Your task to perform on an android device: Open Maps and search for coffee Image 0: 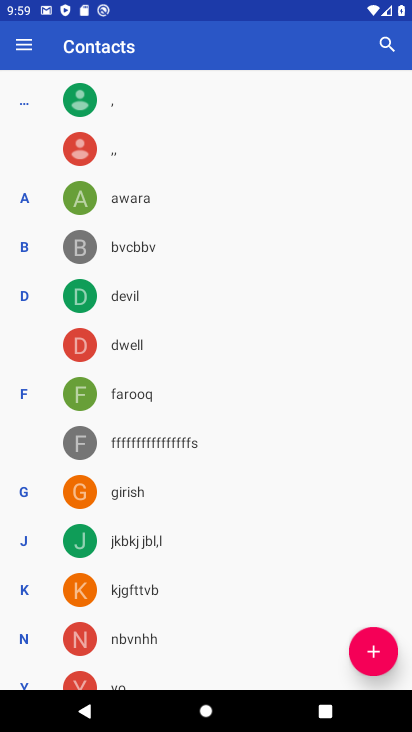
Step 0: press home button
Your task to perform on an android device: Open Maps and search for coffee Image 1: 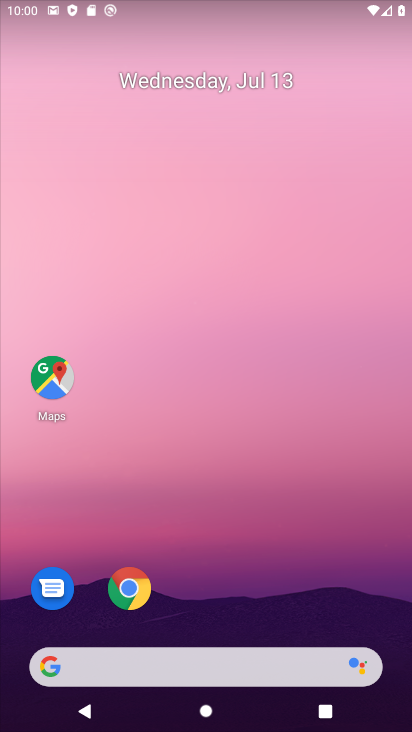
Step 1: drag from (226, 619) to (184, 31)
Your task to perform on an android device: Open Maps and search for coffee Image 2: 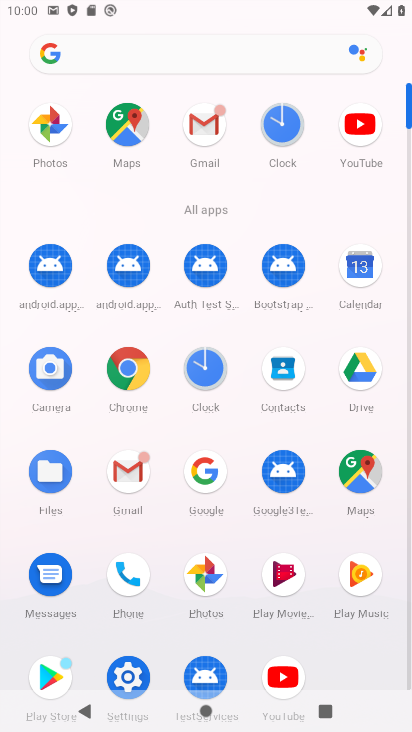
Step 2: click (360, 477)
Your task to perform on an android device: Open Maps and search for coffee Image 3: 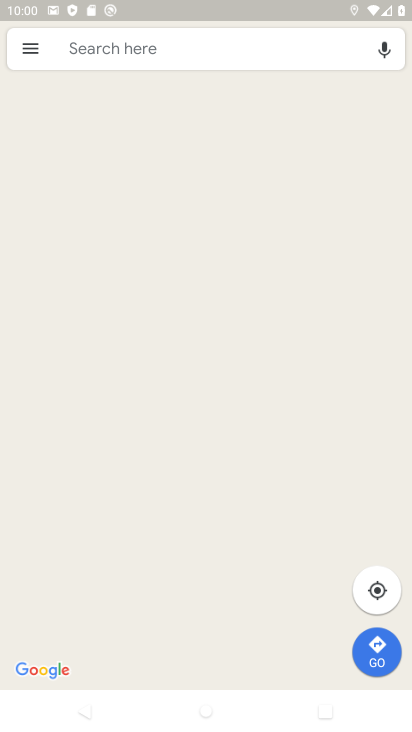
Step 3: click (260, 63)
Your task to perform on an android device: Open Maps and search for coffee Image 4: 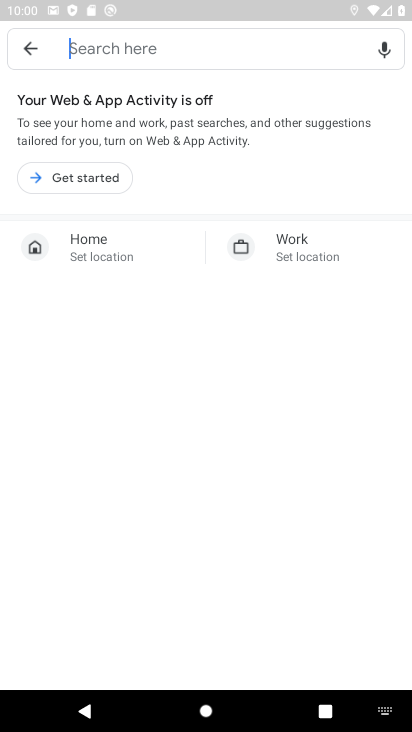
Step 4: click (69, 178)
Your task to perform on an android device: Open Maps and search for coffee Image 5: 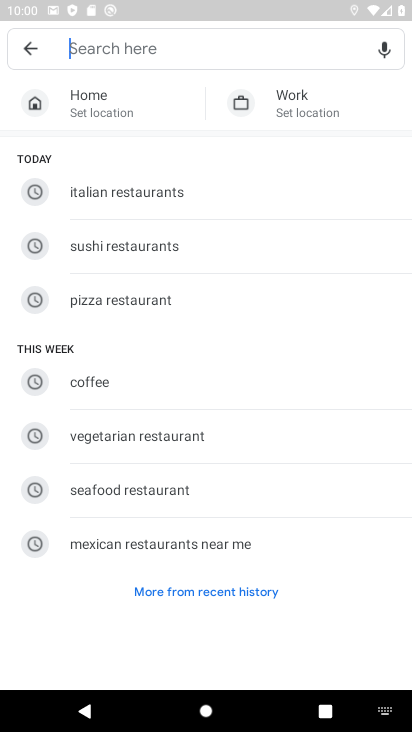
Step 5: click (83, 367)
Your task to perform on an android device: Open Maps and search for coffee Image 6: 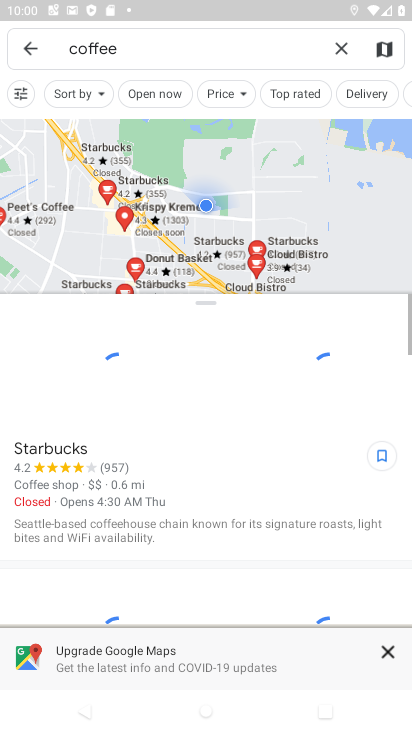
Step 6: task complete